Your task to perform on an android device: empty trash in google photos Image 0: 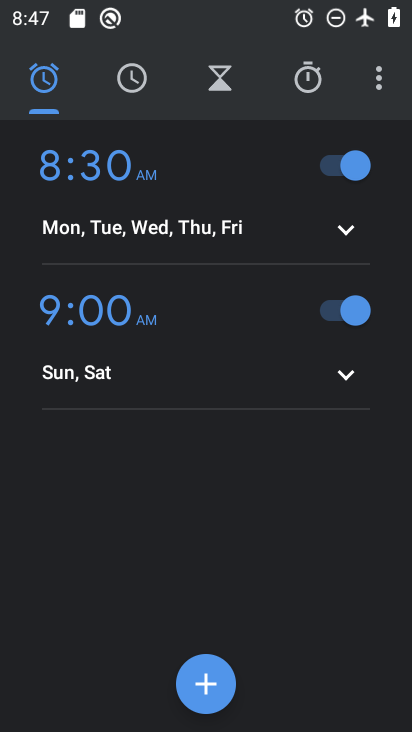
Step 0: press home button
Your task to perform on an android device: empty trash in google photos Image 1: 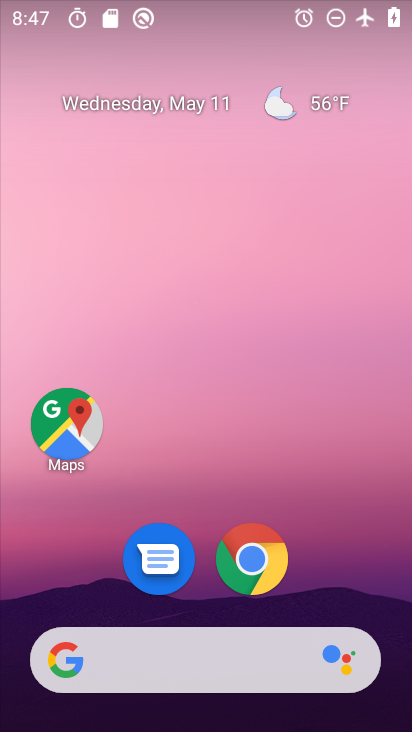
Step 1: drag from (330, 573) to (331, 37)
Your task to perform on an android device: empty trash in google photos Image 2: 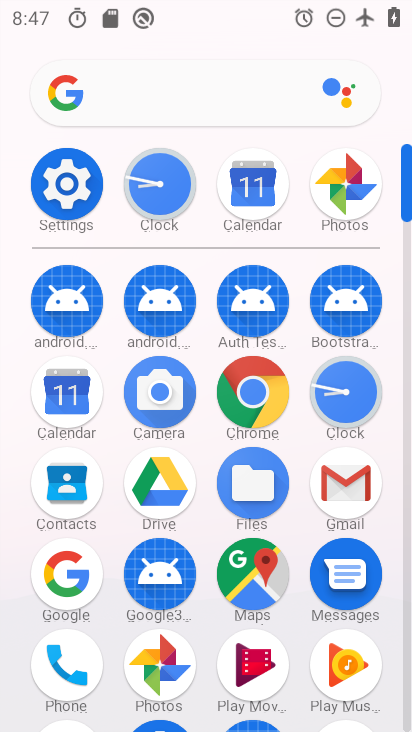
Step 2: click (345, 193)
Your task to perform on an android device: empty trash in google photos Image 3: 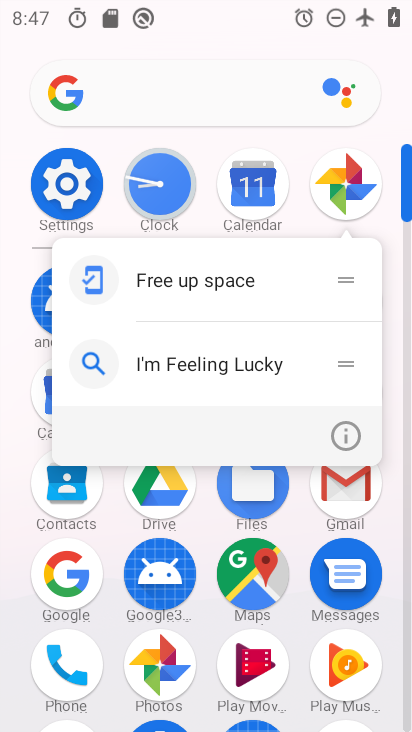
Step 3: click (340, 193)
Your task to perform on an android device: empty trash in google photos Image 4: 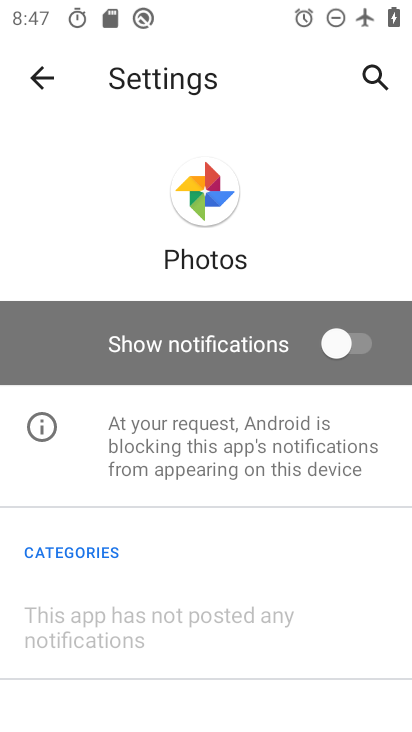
Step 4: click (33, 78)
Your task to perform on an android device: empty trash in google photos Image 5: 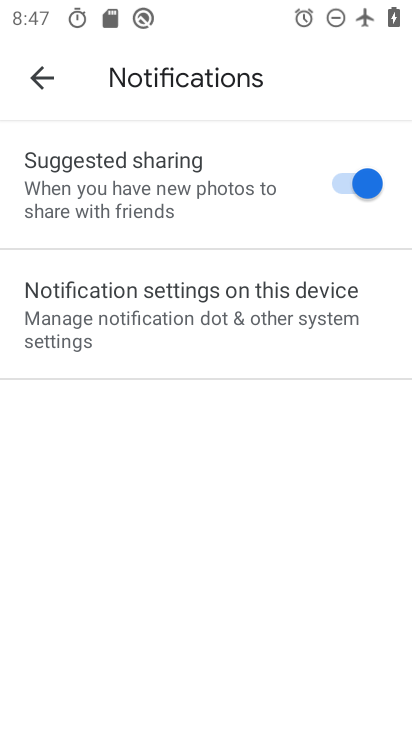
Step 5: click (50, 76)
Your task to perform on an android device: empty trash in google photos Image 6: 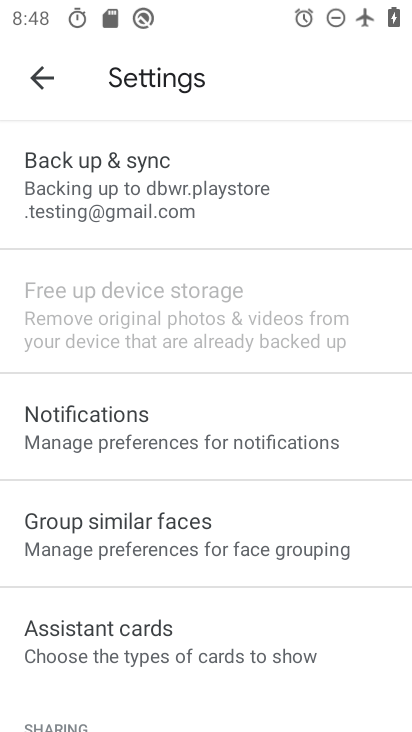
Step 6: drag from (186, 615) to (217, 289)
Your task to perform on an android device: empty trash in google photos Image 7: 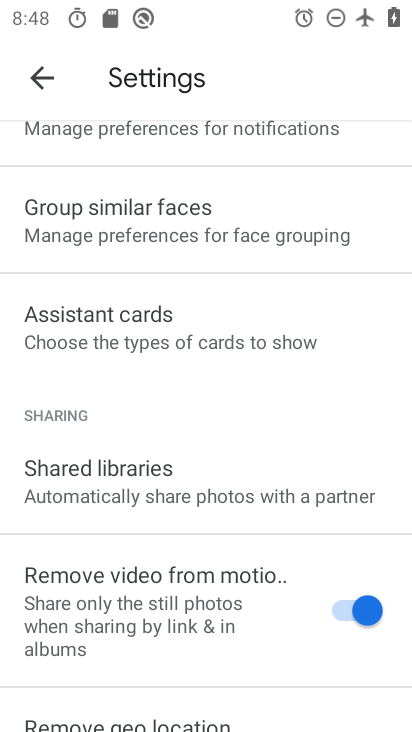
Step 7: drag from (199, 173) to (198, 394)
Your task to perform on an android device: empty trash in google photos Image 8: 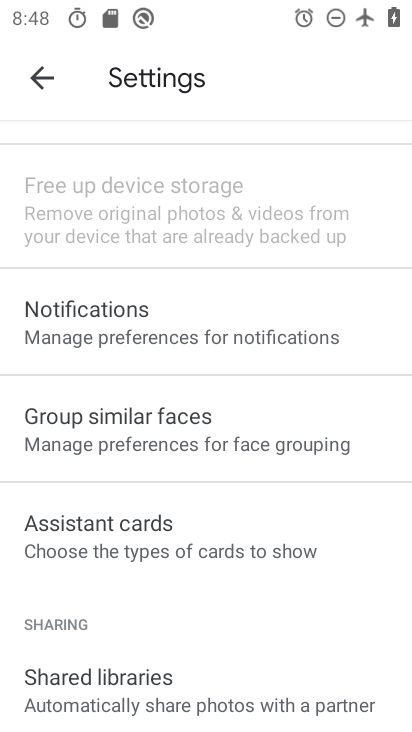
Step 8: drag from (176, 534) to (185, 39)
Your task to perform on an android device: empty trash in google photos Image 9: 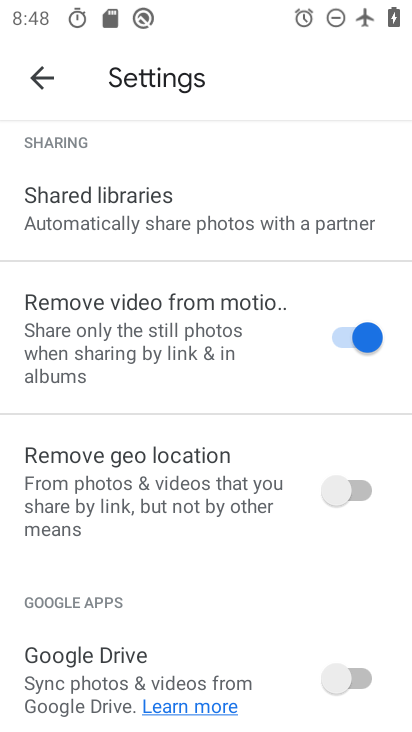
Step 9: click (43, 81)
Your task to perform on an android device: empty trash in google photos Image 10: 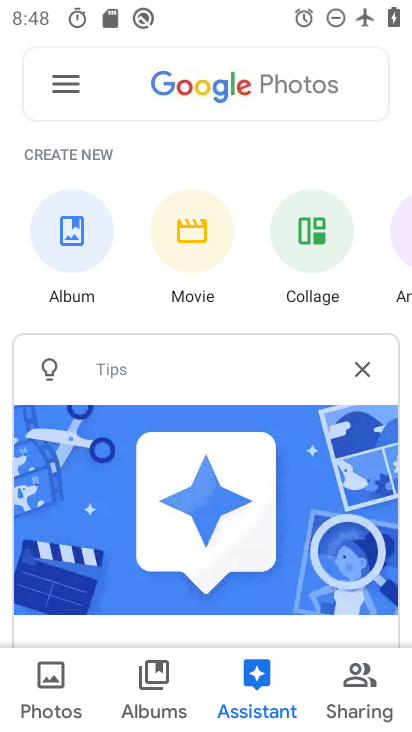
Step 10: click (43, 81)
Your task to perform on an android device: empty trash in google photos Image 11: 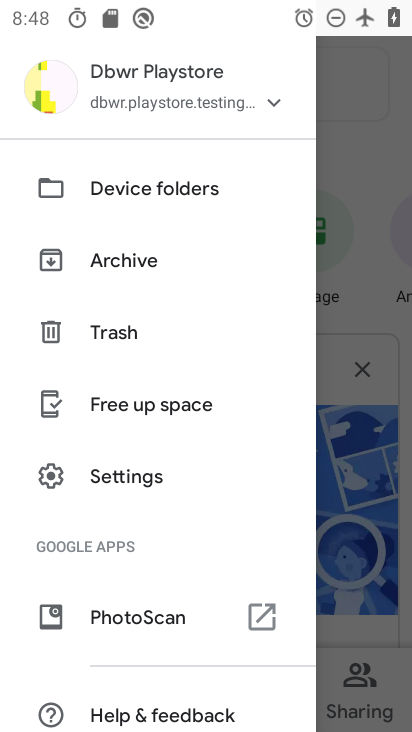
Step 11: click (106, 330)
Your task to perform on an android device: empty trash in google photos Image 12: 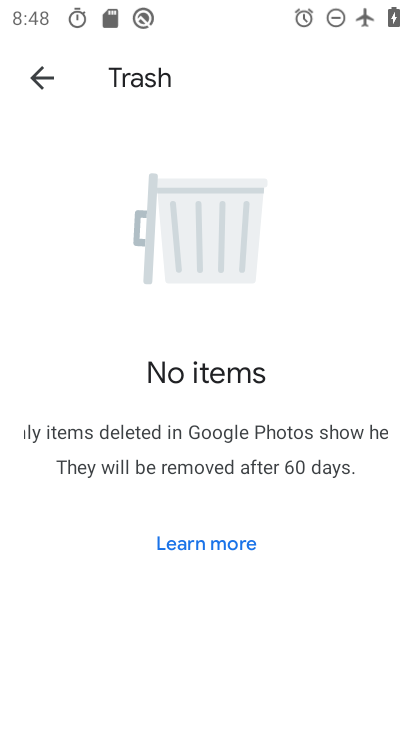
Step 12: task complete